Your task to perform on an android device: open app "Facebook" (install if not already installed), go to login, and select forgot password Image 0: 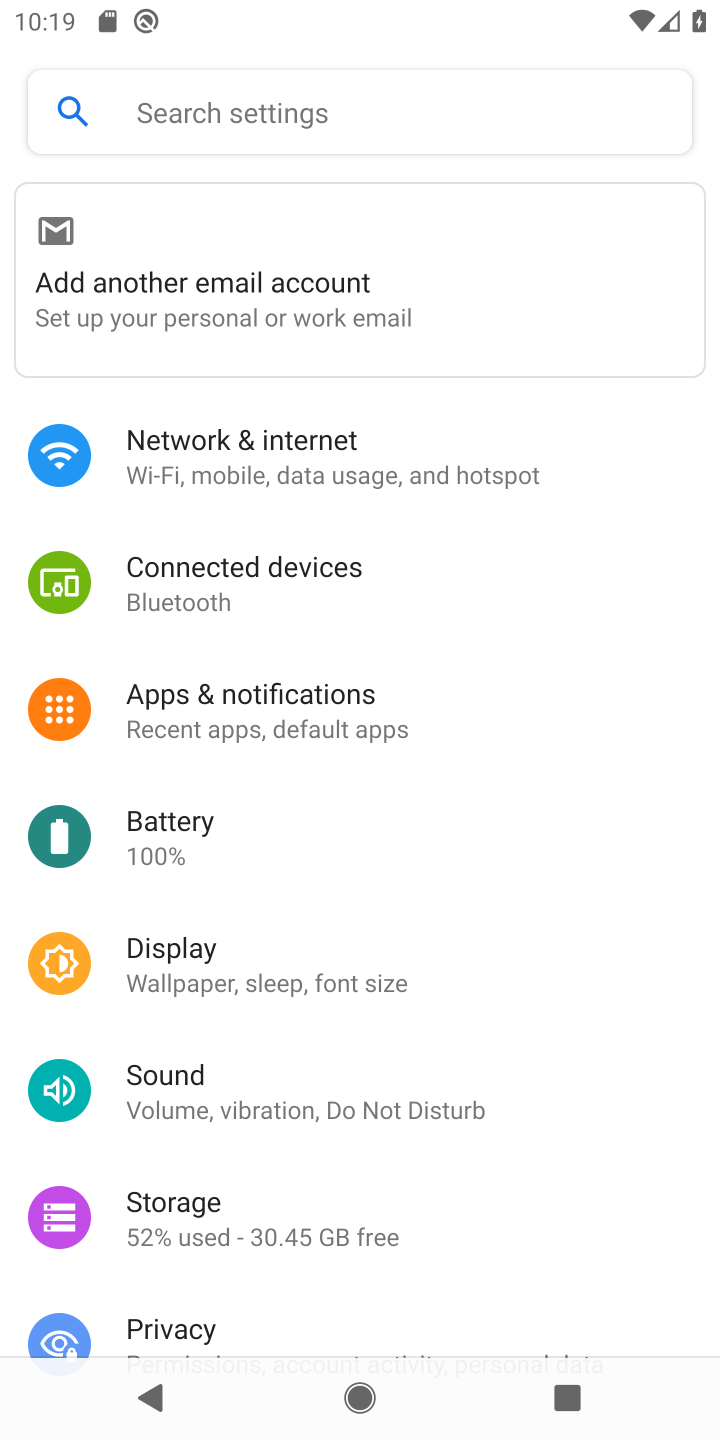
Step 0: press home button
Your task to perform on an android device: open app "Facebook" (install if not already installed), go to login, and select forgot password Image 1: 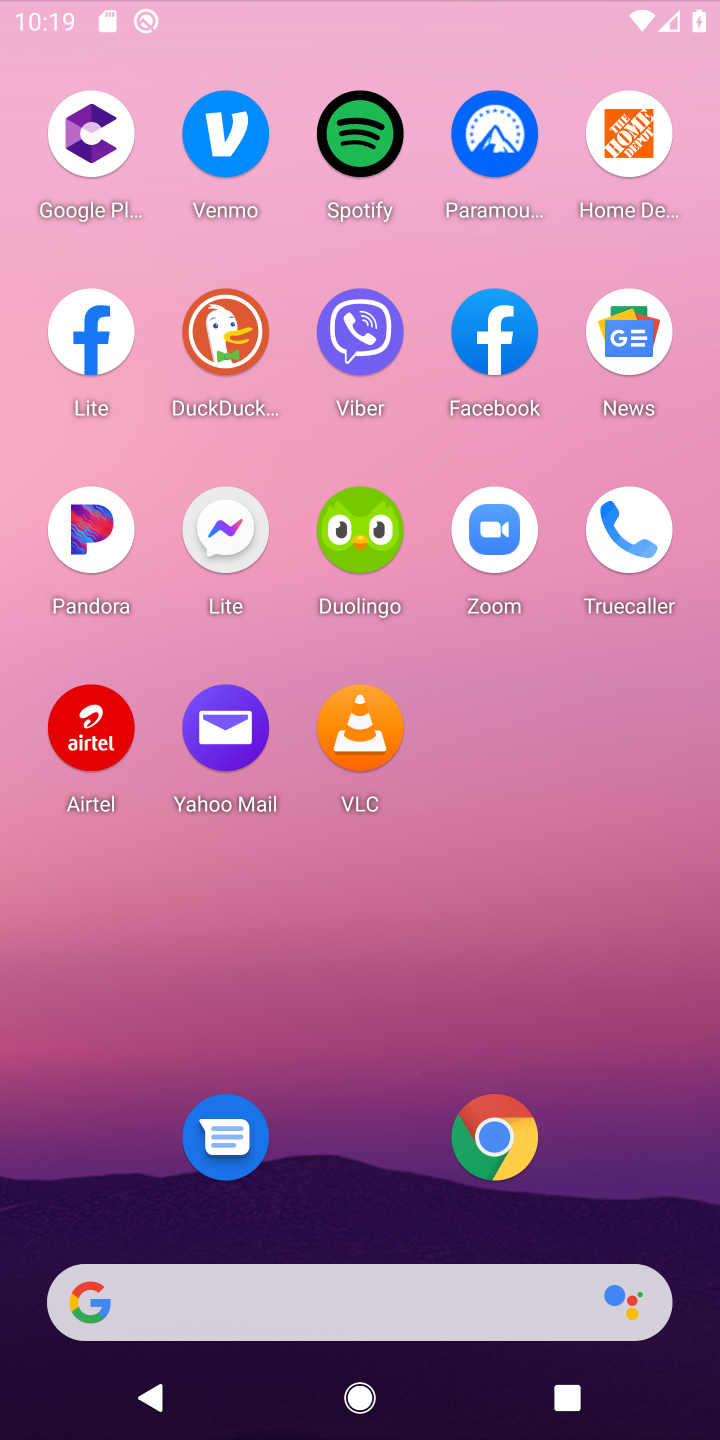
Step 1: drag from (377, 1195) to (345, 344)
Your task to perform on an android device: open app "Facebook" (install if not already installed), go to login, and select forgot password Image 2: 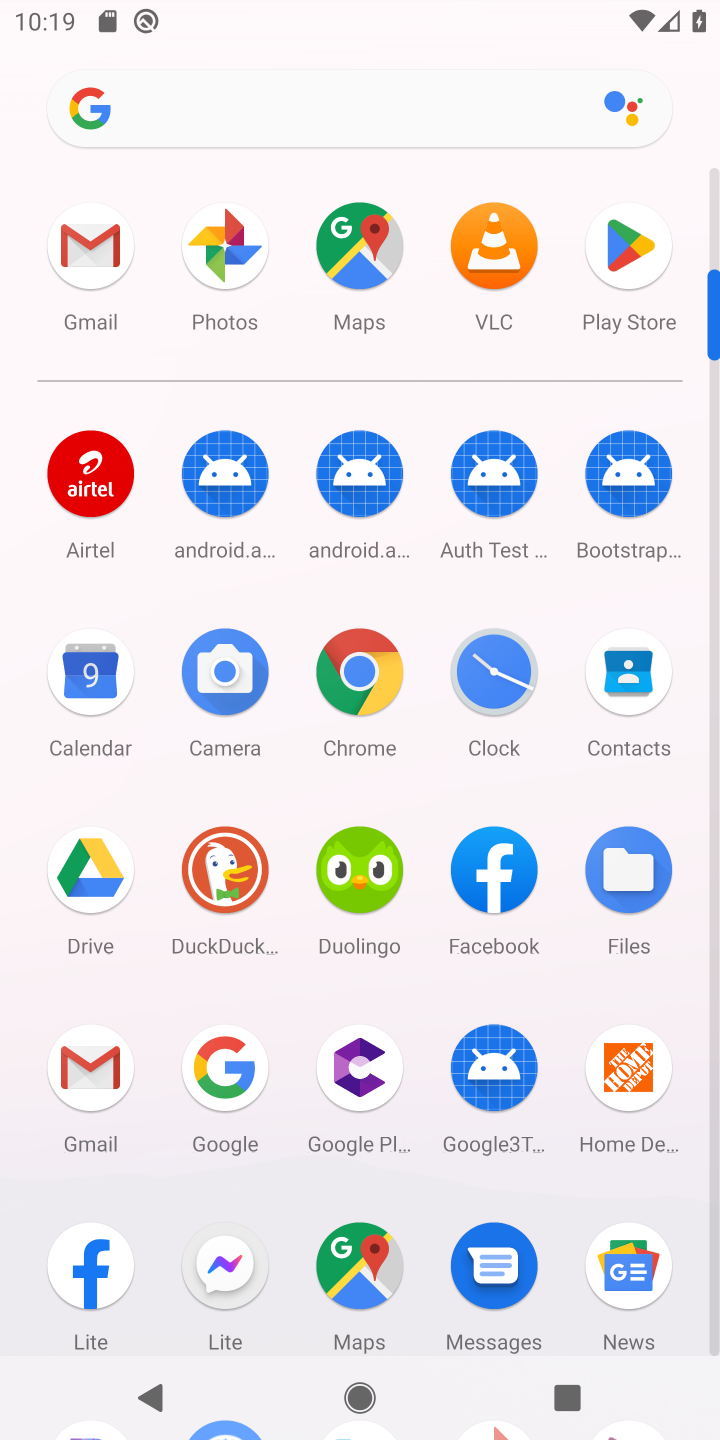
Step 2: click (631, 258)
Your task to perform on an android device: open app "Facebook" (install if not already installed), go to login, and select forgot password Image 3: 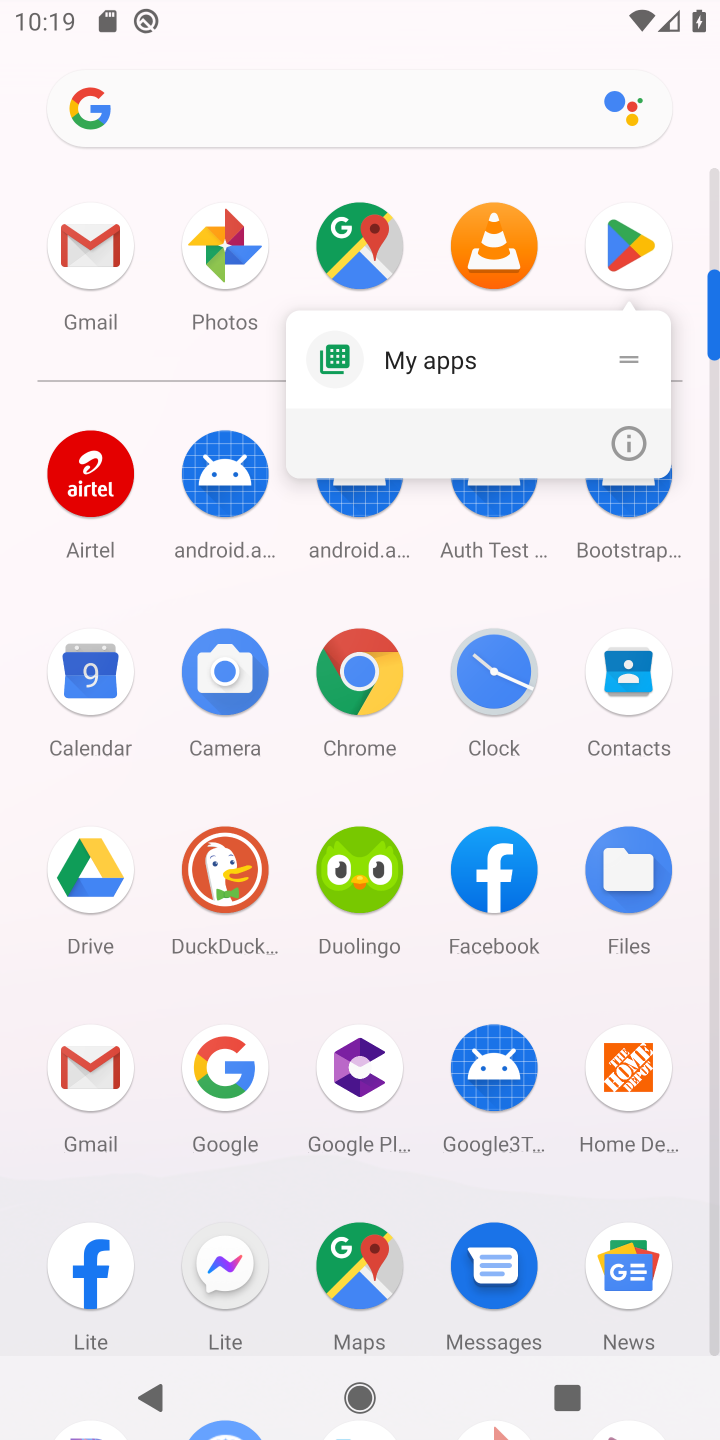
Step 3: click (638, 226)
Your task to perform on an android device: open app "Facebook" (install if not already installed), go to login, and select forgot password Image 4: 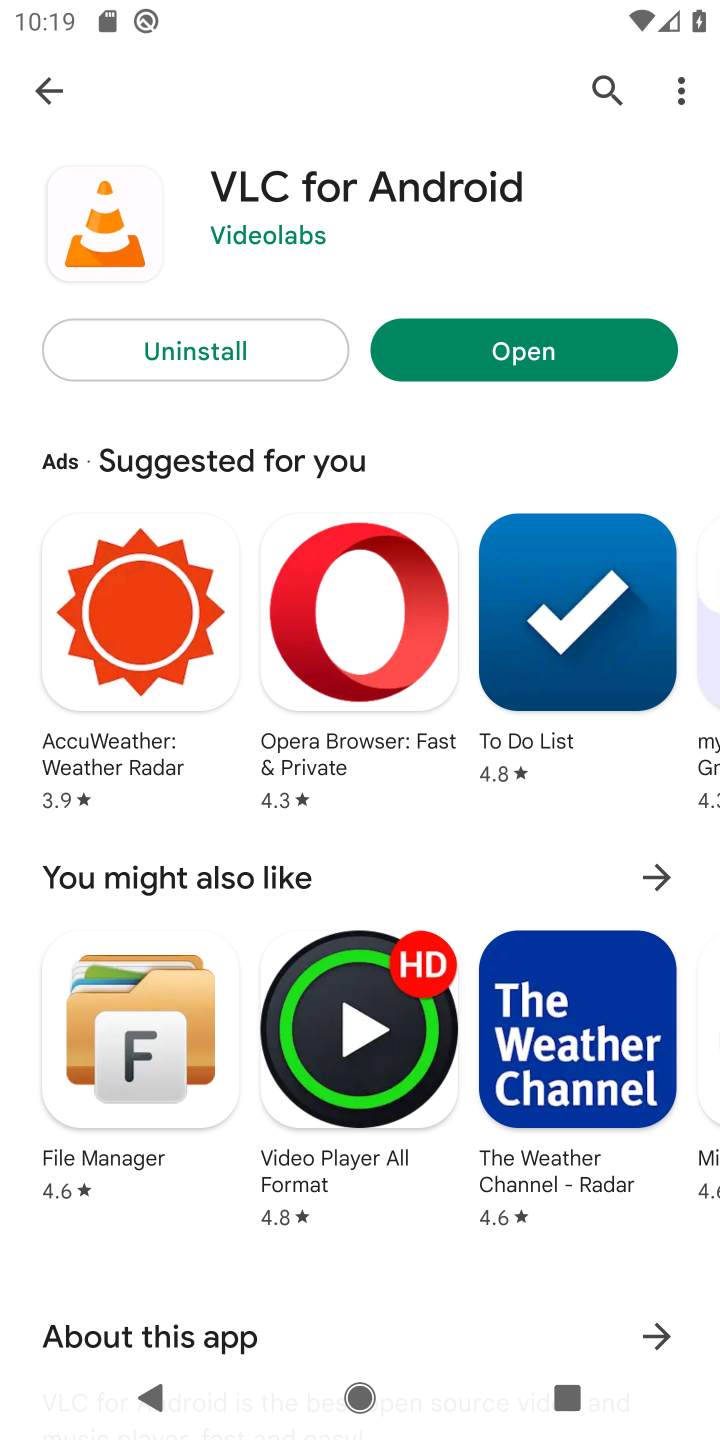
Step 4: click (594, 80)
Your task to perform on an android device: open app "Facebook" (install if not already installed), go to login, and select forgot password Image 5: 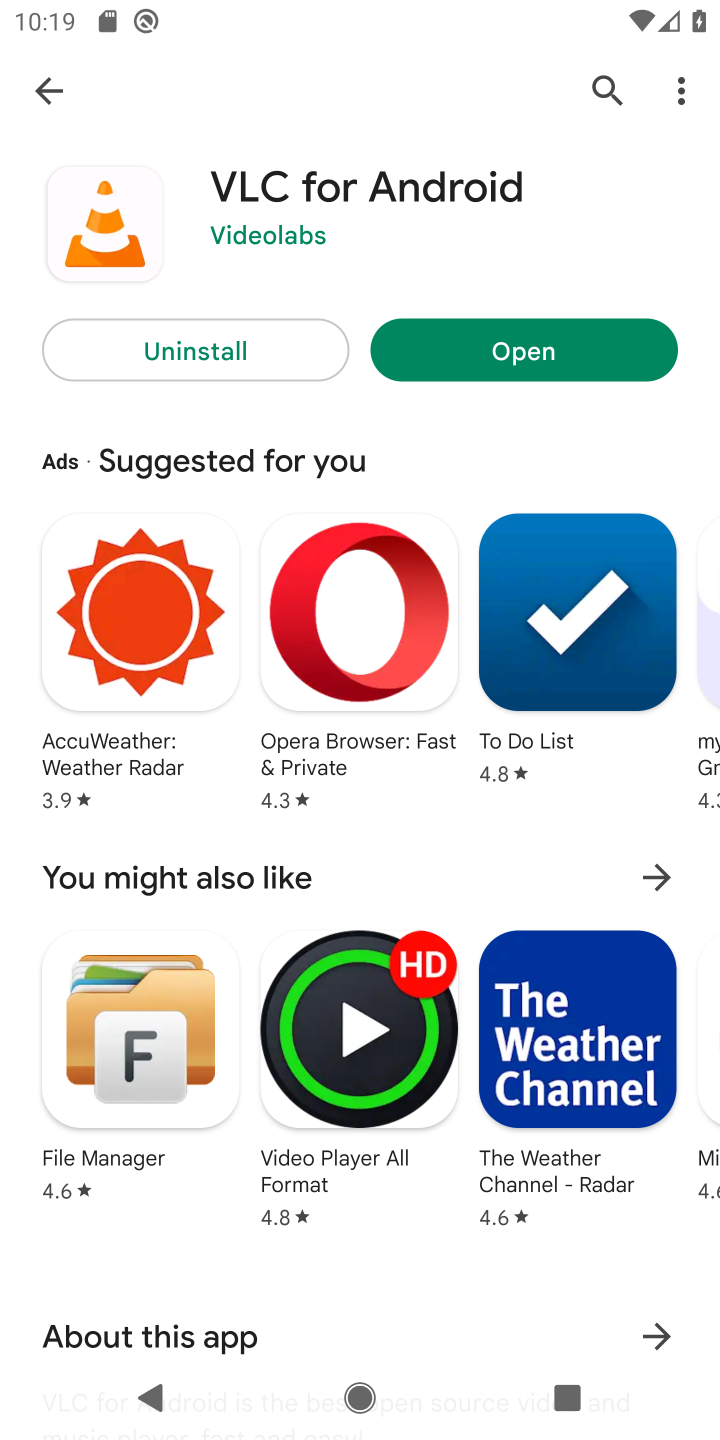
Step 5: click (607, 97)
Your task to perform on an android device: open app "Facebook" (install if not already installed), go to login, and select forgot password Image 6: 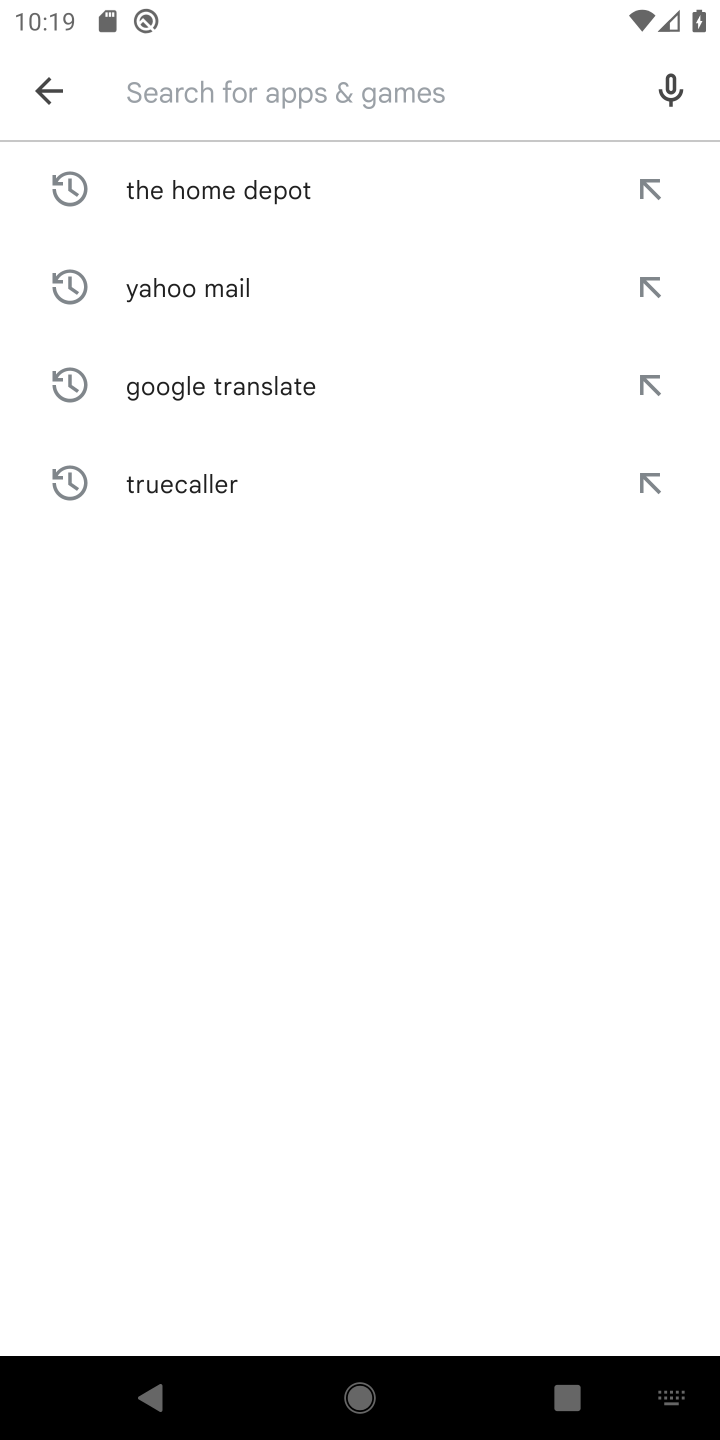
Step 6: type "Facebook"
Your task to perform on an android device: open app "Facebook" (install if not already installed), go to login, and select forgot password Image 7: 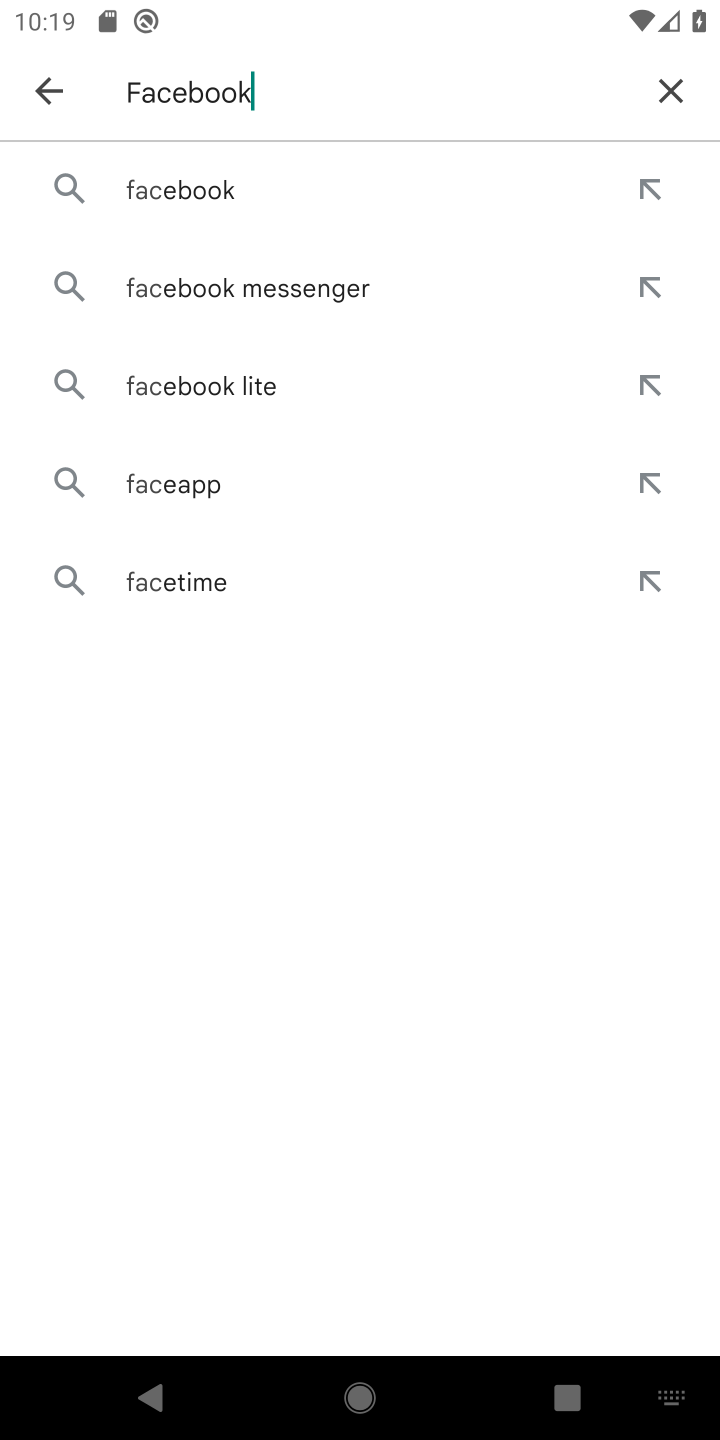
Step 7: type ""
Your task to perform on an android device: open app "Facebook" (install if not already installed), go to login, and select forgot password Image 8: 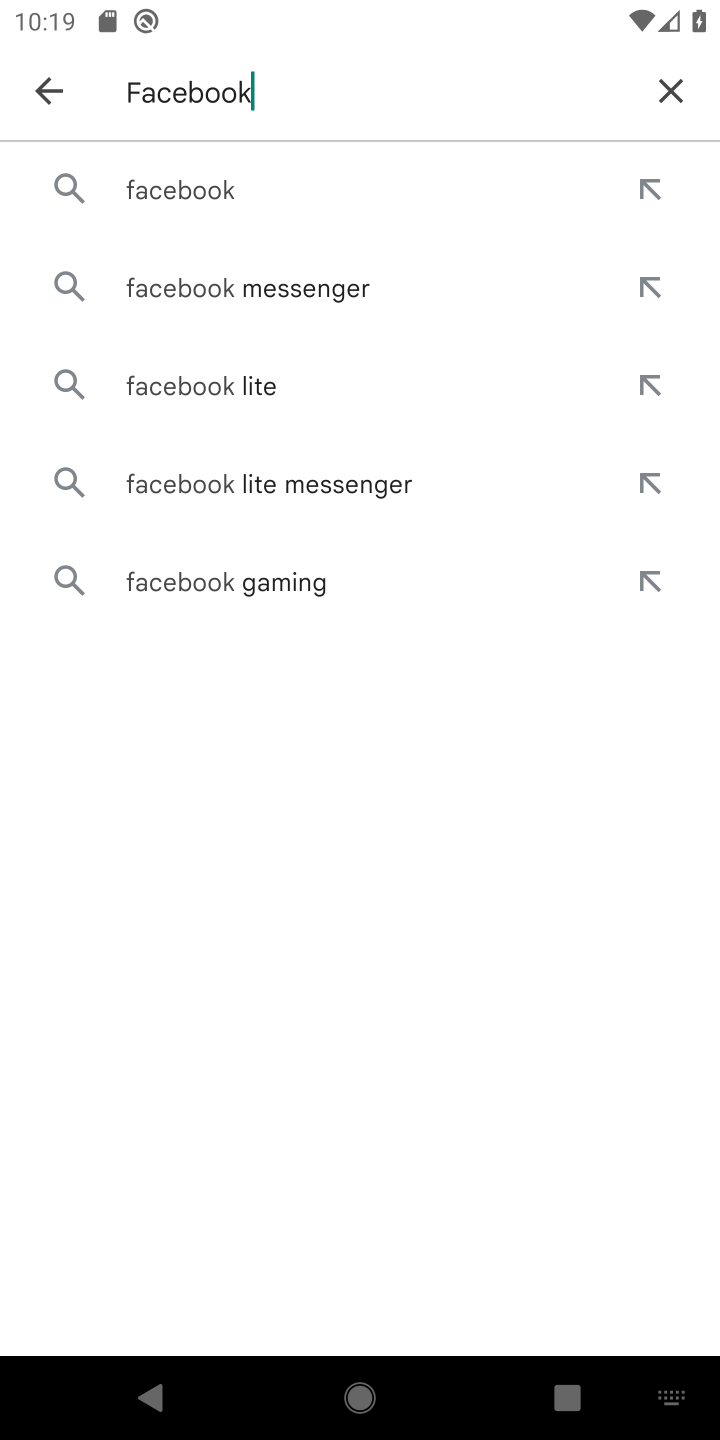
Step 8: click (237, 198)
Your task to perform on an android device: open app "Facebook" (install if not already installed), go to login, and select forgot password Image 9: 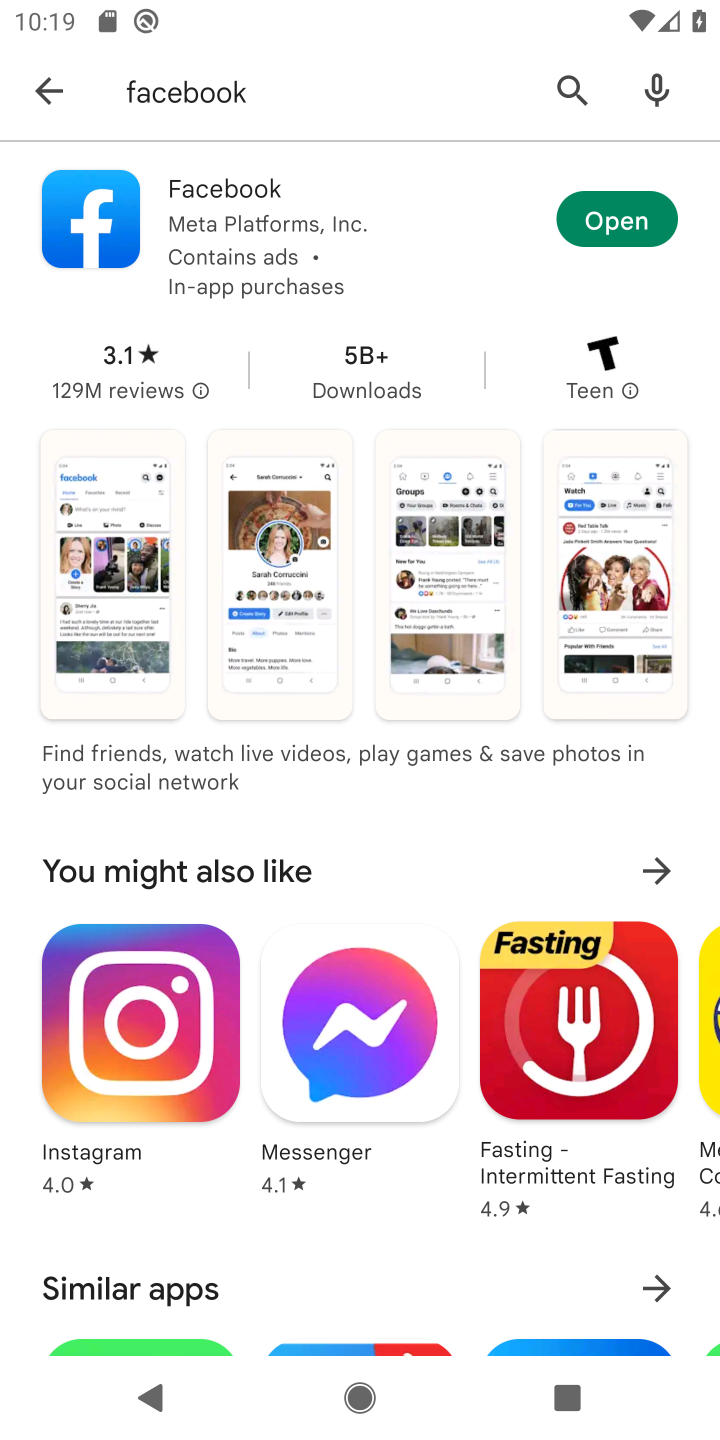
Step 9: click (606, 215)
Your task to perform on an android device: open app "Facebook" (install if not already installed), go to login, and select forgot password Image 10: 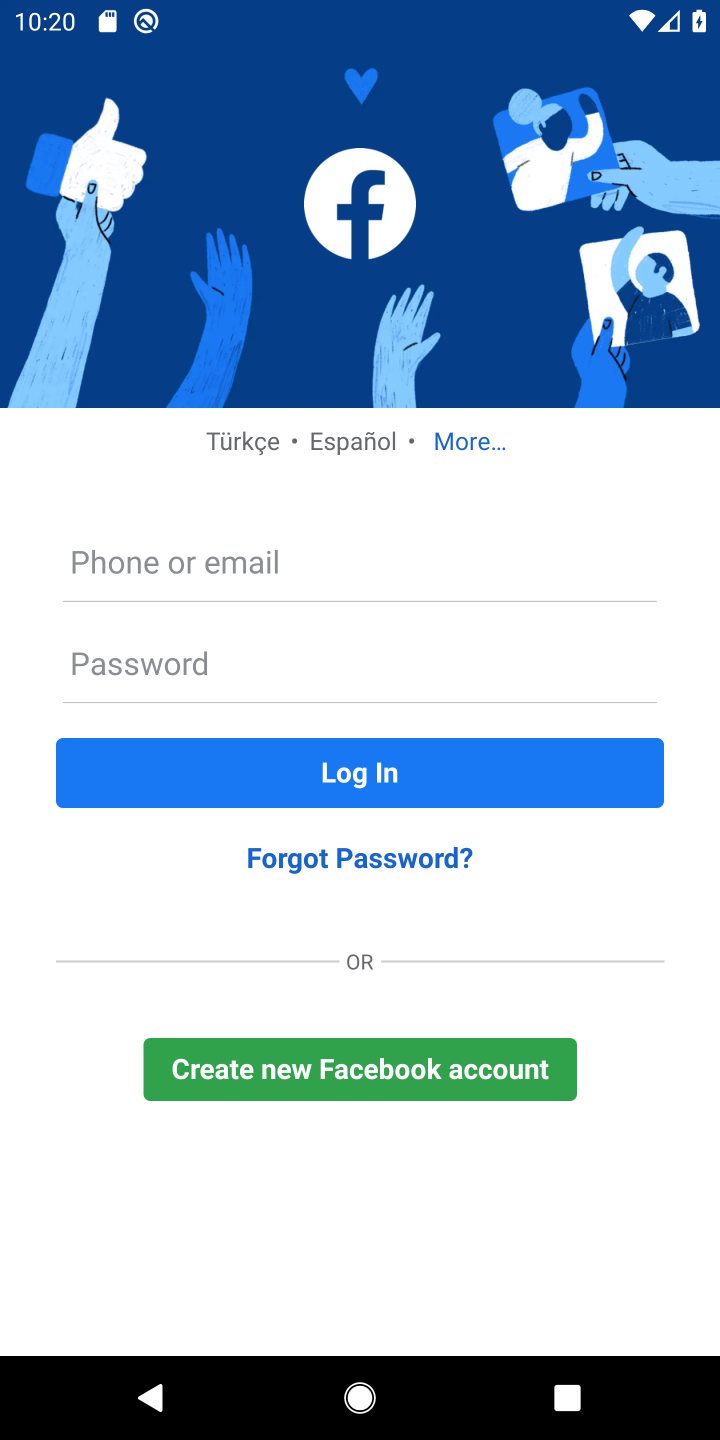
Step 10: task complete